Your task to perform on an android device: check battery use Image 0: 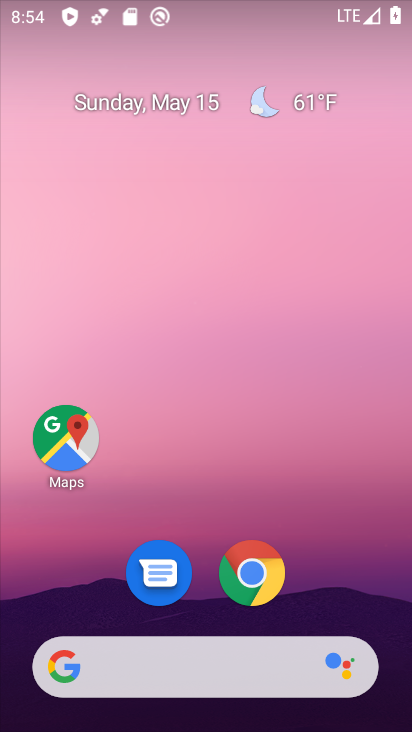
Step 0: press home button
Your task to perform on an android device: check battery use Image 1: 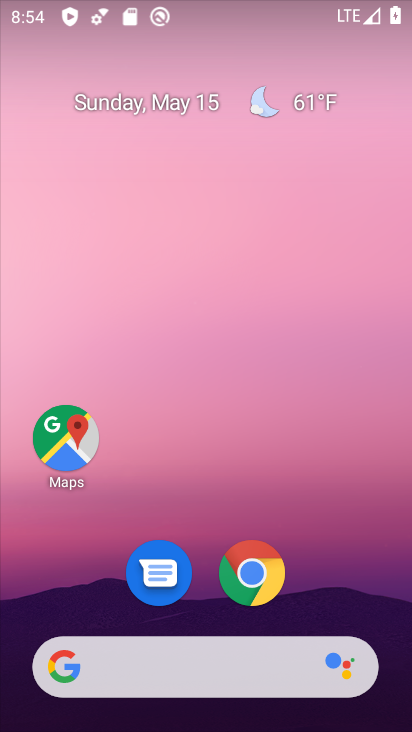
Step 1: drag from (14, 633) to (282, 68)
Your task to perform on an android device: check battery use Image 2: 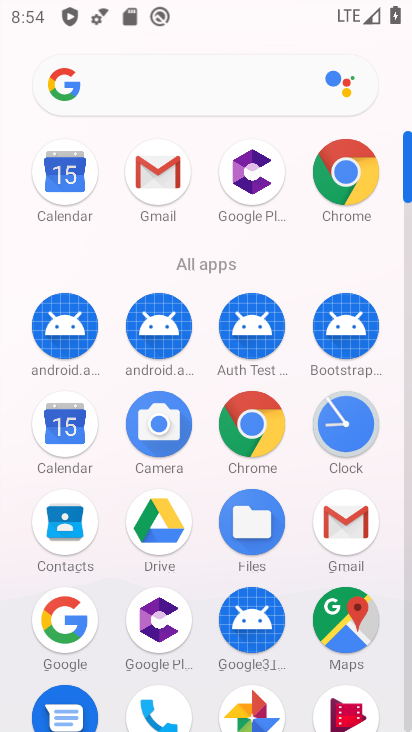
Step 2: drag from (149, 587) to (280, 188)
Your task to perform on an android device: check battery use Image 3: 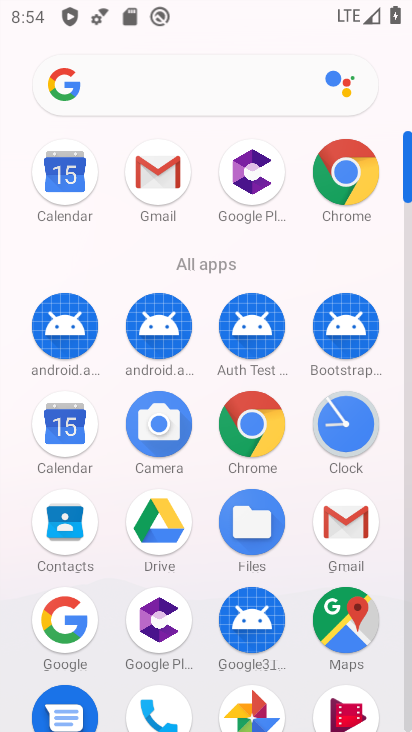
Step 3: drag from (41, 615) to (254, 173)
Your task to perform on an android device: check battery use Image 4: 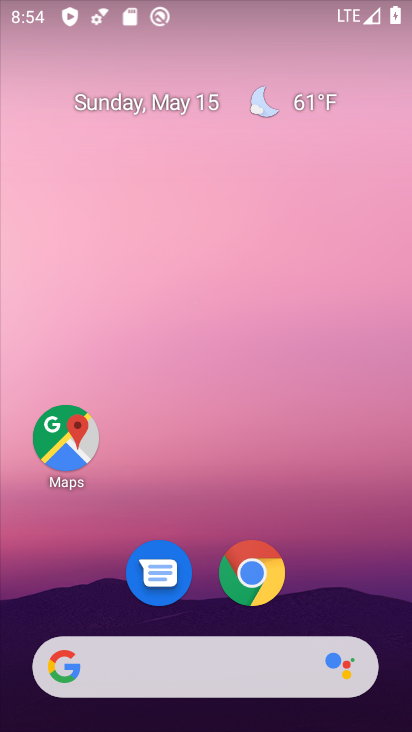
Step 4: drag from (39, 618) to (243, 162)
Your task to perform on an android device: check battery use Image 5: 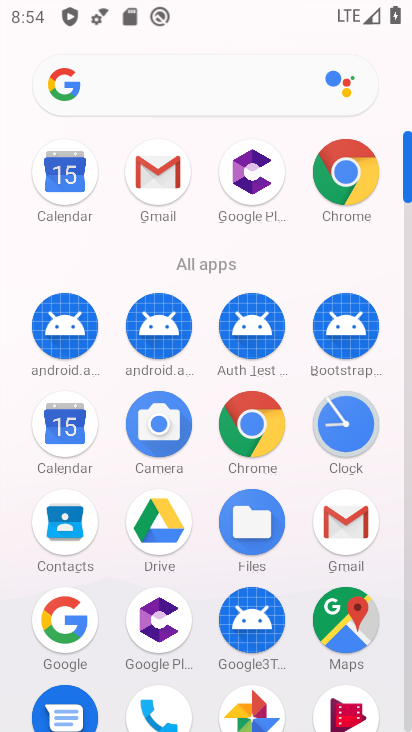
Step 5: drag from (41, 573) to (271, 179)
Your task to perform on an android device: check battery use Image 6: 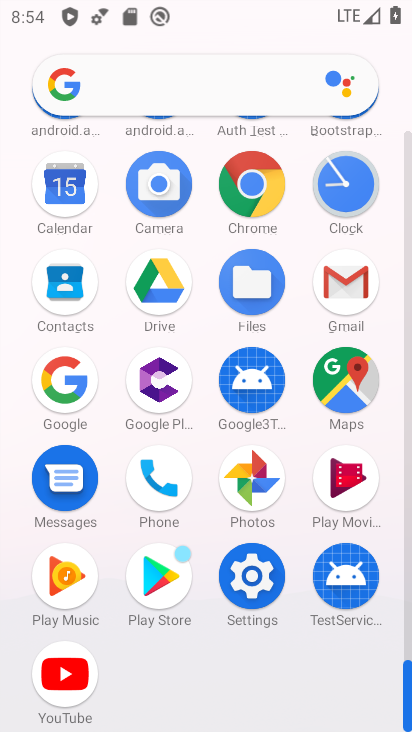
Step 6: click (233, 592)
Your task to perform on an android device: check battery use Image 7: 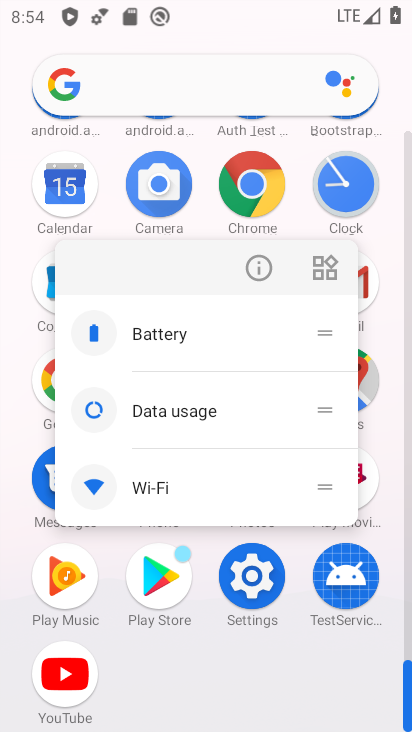
Step 7: click (177, 339)
Your task to perform on an android device: check battery use Image 8: 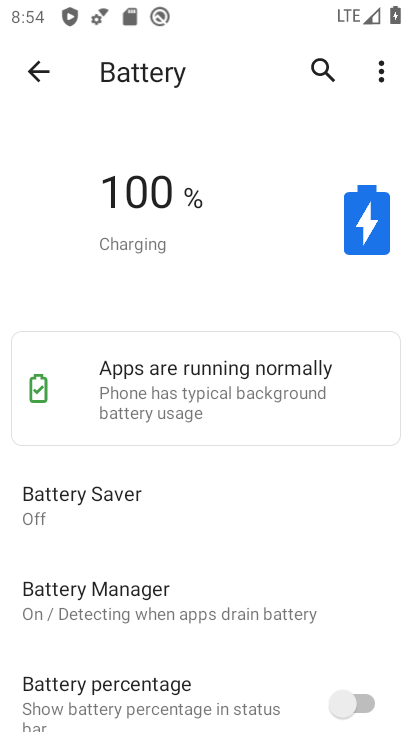
Step 8: task complete